Your task to perform on an android device: Open calendar and show me the second week of next month Image 0: 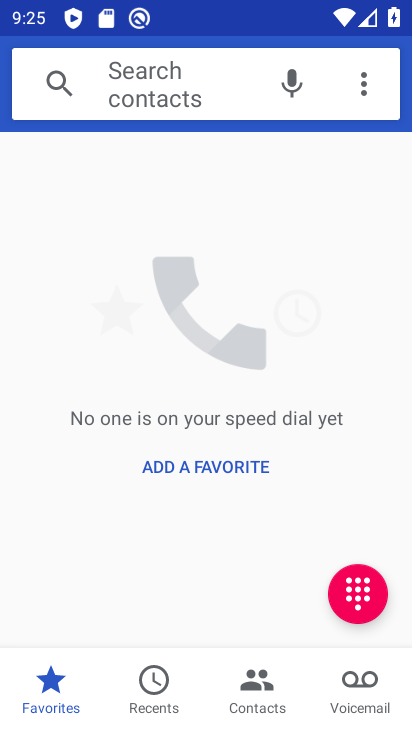
Step 0: press home button
Your task to perform on an android device: Open calendar and show me the second week of next month Image 1: 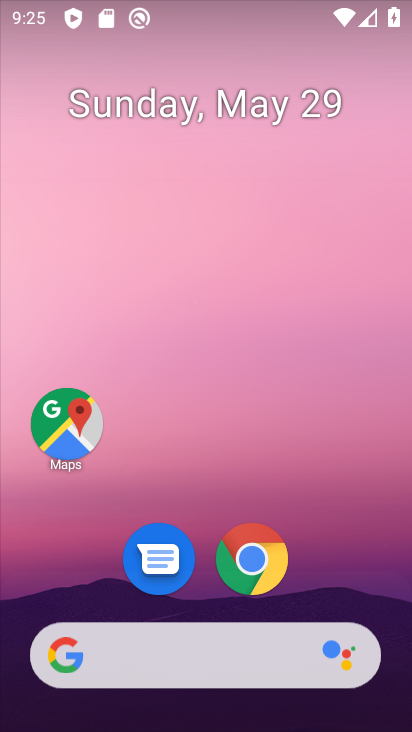
Step 1: drag from (64, 583) to (209, 156)
Your task to perform on an android device: Open calendar and show me the second week of next month Image 2: 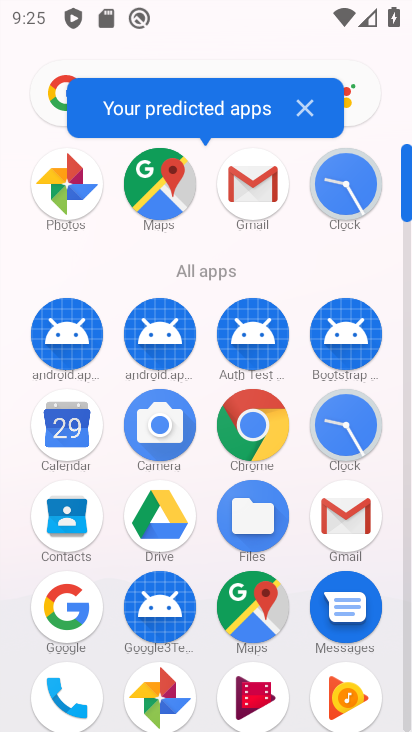
Step 2: click (76, 422)
Your task to perform on an android device: Open calendar and show me the second week of next month Image 3: 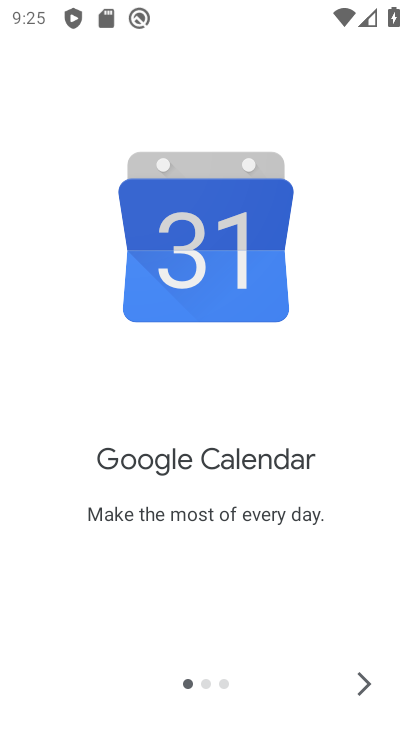
Step 3: click (369, 676)
Your task to perform on an android device: Open calendar and show me the second week of next month Image 4: 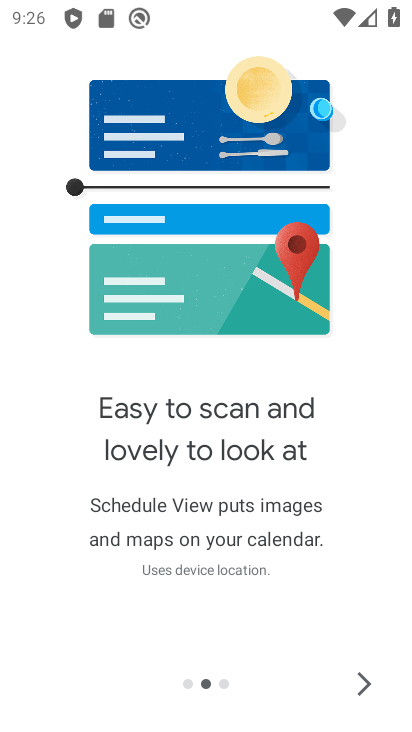
Step 4: click (373, 692)
Your task to perform on an android device: Open calendar and show me the second week of next month Image 5: 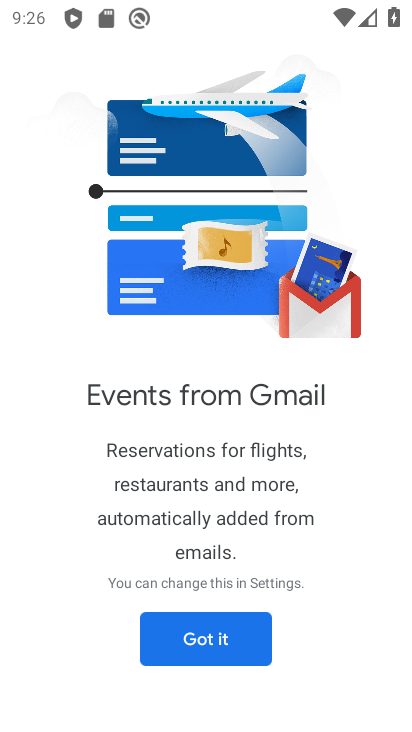
Step 5: click (209, 648)
Your task to perform on an android device: Open calendar and show me the second week of next month Image 6: 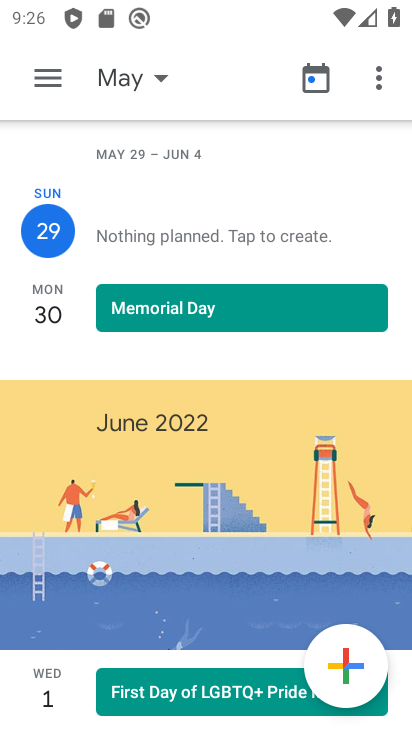
Step 6: click (119, 84)
Your task to perform on an android device: Open calendar and show me the second week of next month Image 7: 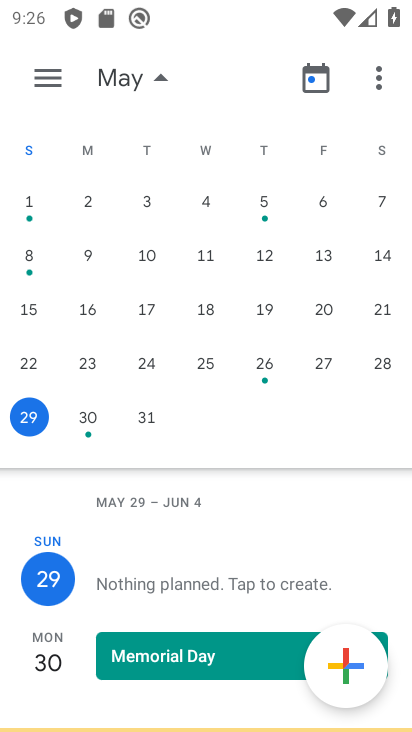
Step 7: drag from (370, 410) to (0, 345)
Your task to perform on an android device: Open calendar and show me the second week of next month Image 8: 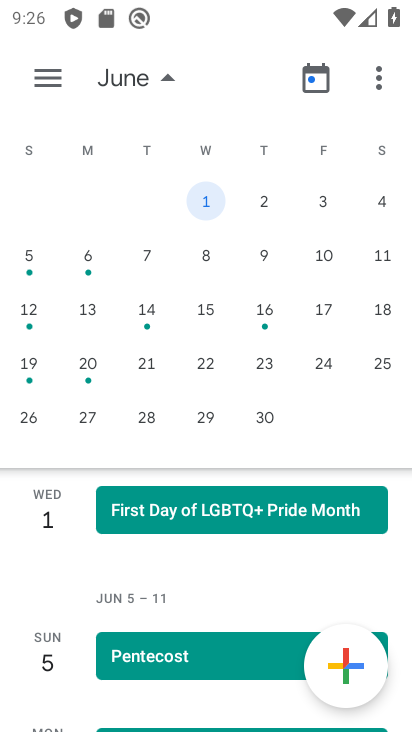
Step 8: click (29, 313)
Your task to perform on an android device: Open calendar and show me the second week of next month Image 9: 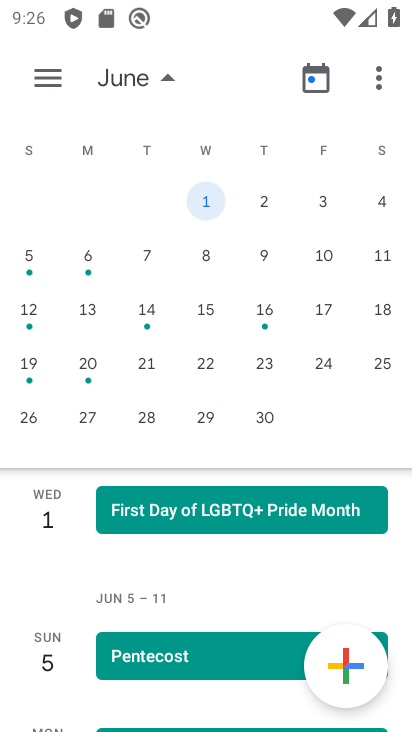
Step 9: click (34, 308)
Your task to perform on an android device: Open calendar and show me the second week of next month Image 10: 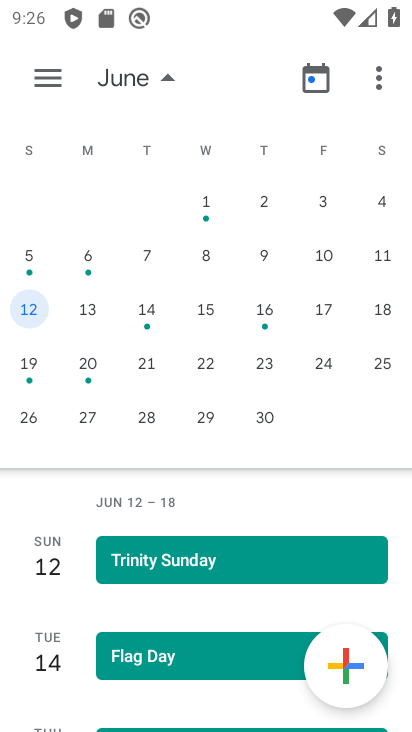
Step 10: click (52, 85)
Your task to perform on an android device: Open calendar and show me the second week of next month Image 11: 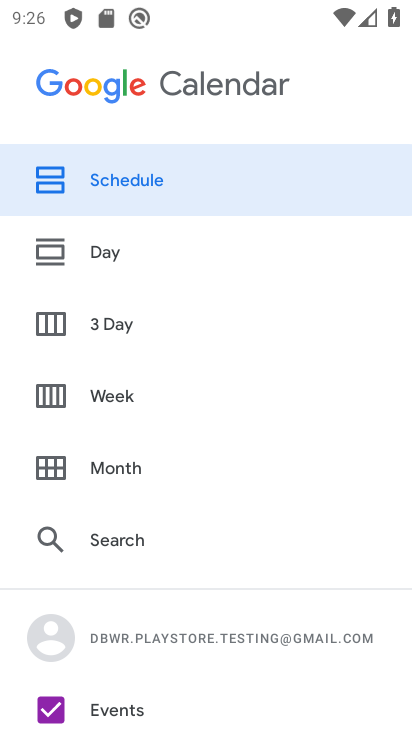
Step 11: click (114, 395)
Your task to perform on an android device: Open calendar and show me the second week of next month Image 12: 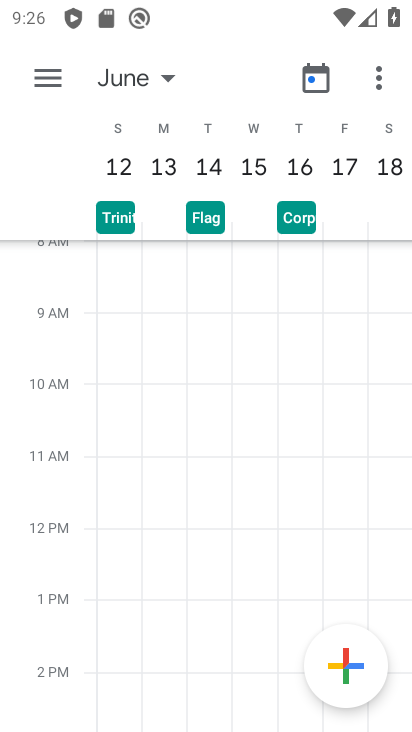
Step 12: task complete